Your task to perform on an android device: Open calendar and show me the first week of next month Image 0: 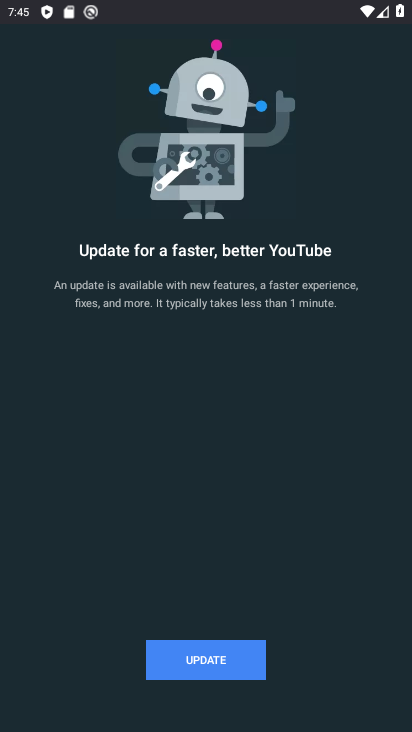
Step 0: press home button
Your task to perform on an android device: Open calendar and show me the first week of next month Image 1: 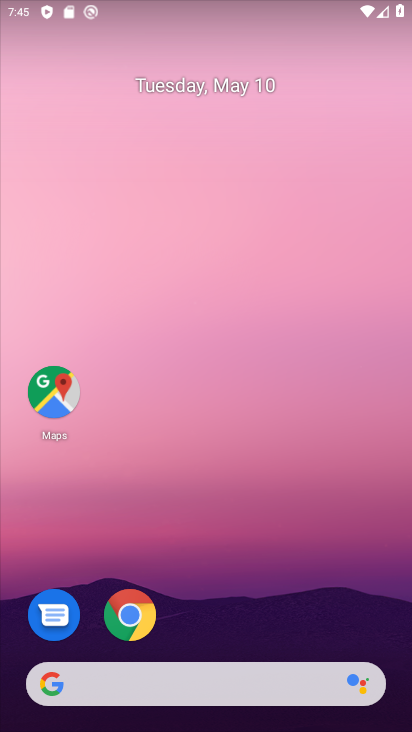
Step 1: drag from (171, 603) to (258, 240)
Your task to perform on an android device: Open calendar and show me the first week of next month Image 2: 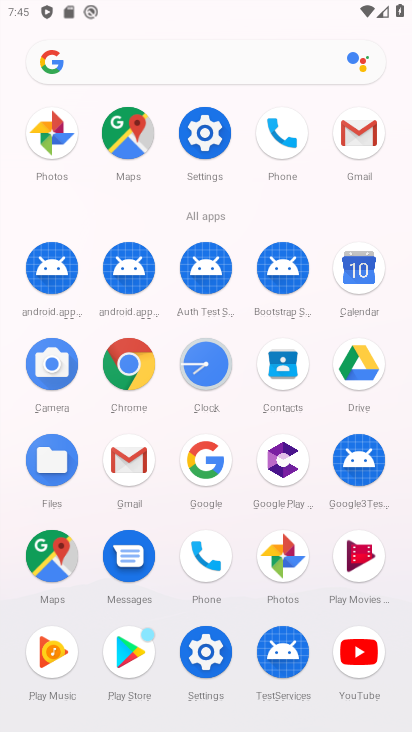
Step 2: click (345, 254)
Your task to perform on an android device: Open calendar and show me the first week of next month Image 3: 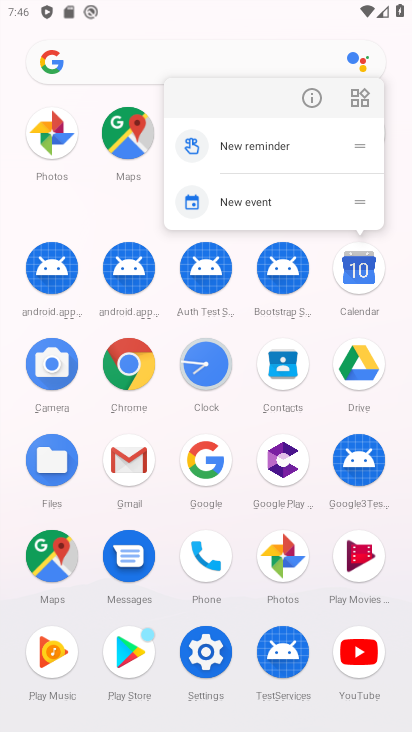
Step 3: drag from (237, 621) to (300, 276)
Your task to perform on an android device: Open calendar and show me the first week of next month Image 4: 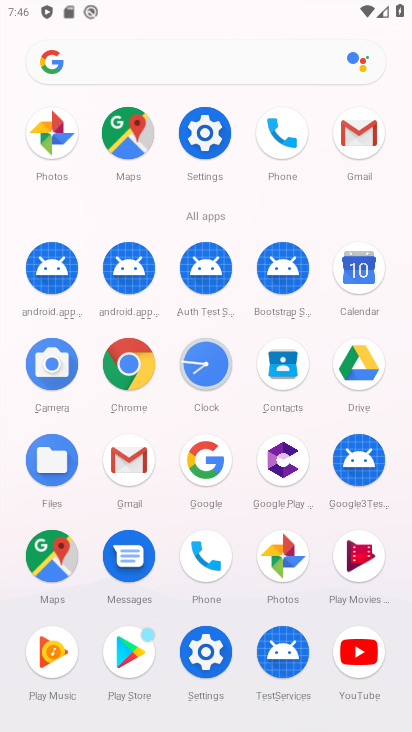
Step 4: drag from (252, 618) to (277, 246)
Your task to perform on an android device: Open calendar and show me the first week of next month Image 5: 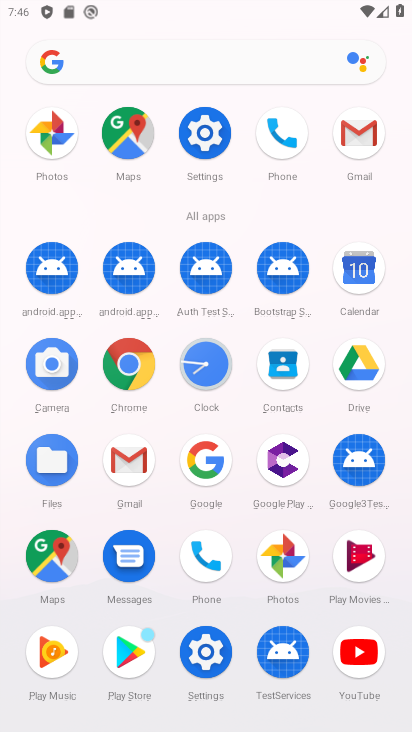
Step 5: drag from (245, 625) to (245, 279)
Your task to perform on an android device: Open calendar and show me the first week of next month Image 6: 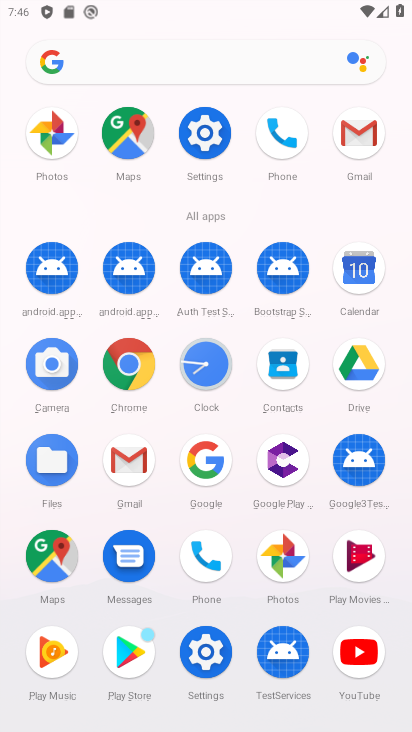
Step 6: click (356, 255)
Your task to perform on an android device: Open calendar and show me the first week of next month Image 7: 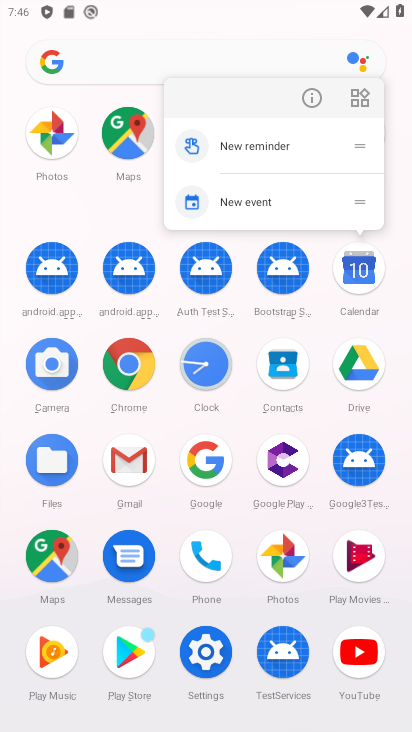
Step 7: click (319, 95)
Your task to perform on an android device: Open calendar and show me the first week of next month Image 8: 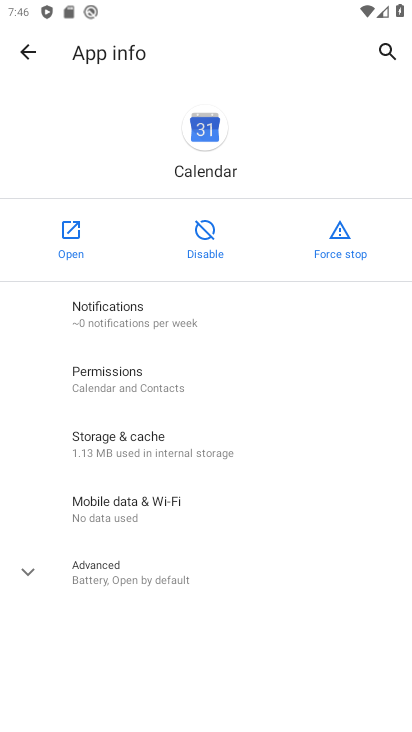
Step 8: click (71, 250)
Your task to perform on an android device: Open calendar and show me the first week of next month Image 9: 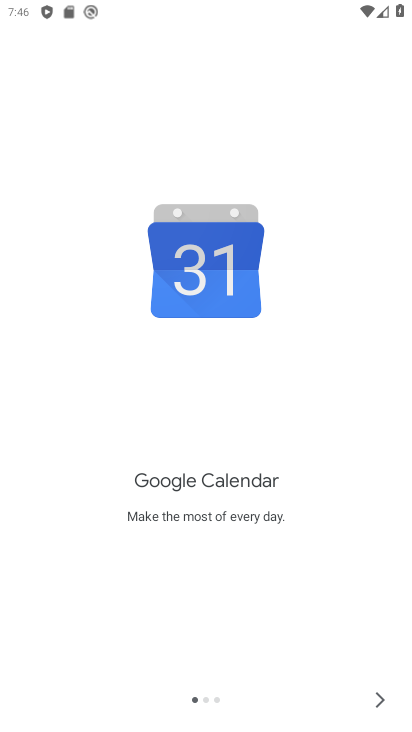
Step 9: click (372, 689)
Your task to perform on an android device: Open calendar and show me the first week of next month Image 10: 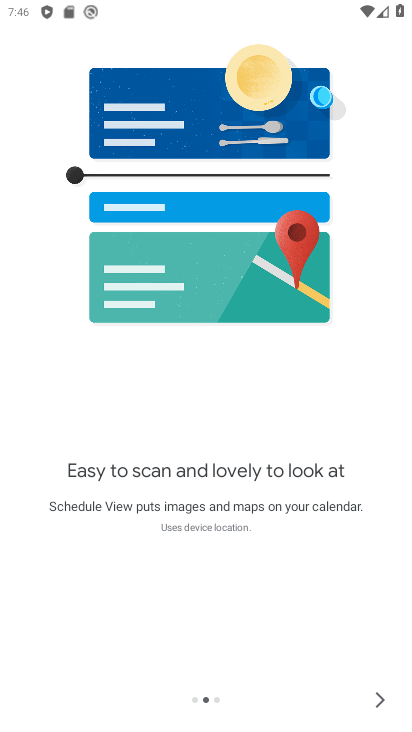
Step 10: click (373, 690)
Your task to perform on an android device: Open calendar and show me the first week of next month Image 11: 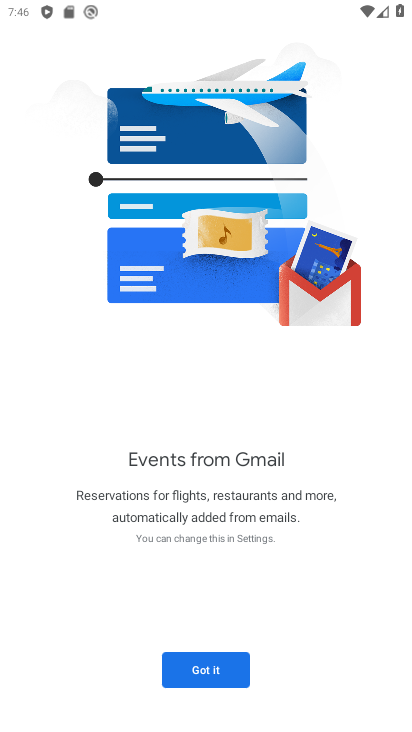
Step 11: click (371, 691)
Your task to perform on an android device: Open calendar and show me the first week of next month Image 12: 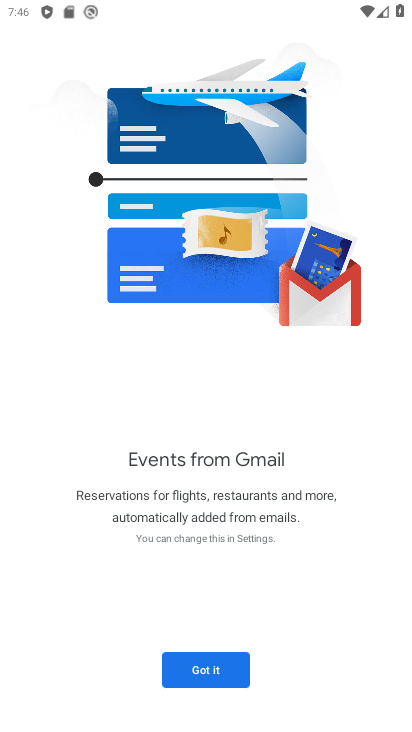
Step 12: click (224, 655)
Your task to perform on an android device: Open calendar and show me the first week of next month Image 13: 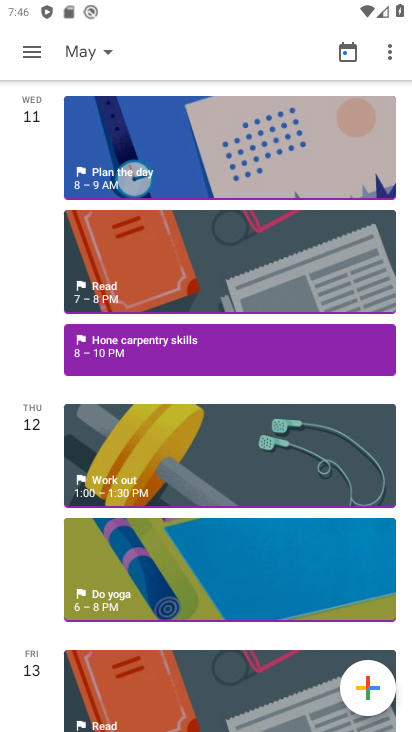
Step 13: drag from (239, 635) to (268, 297)
Your task to perform on an android device: Open calendar and show me the first week of next month Image 14: 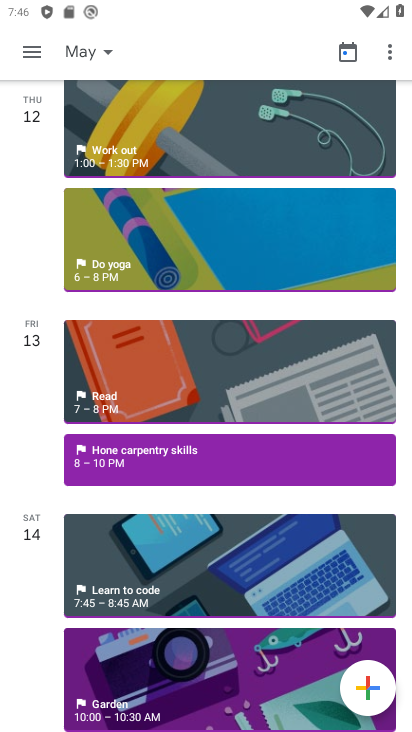
Step 14: drag from (160, 192) to (191, 720)
Your task to perform on an android device: Open calendar and show me the first week of next month Image 15: 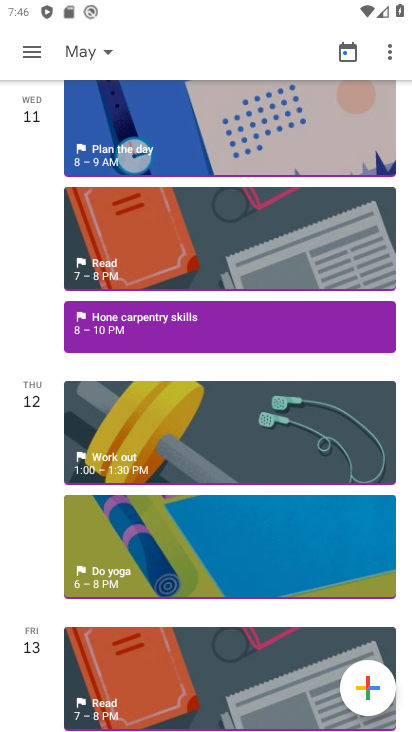
Step 15: click (92, 50)
Your task to perform on an android device: Open calendar and show me the first week of next month Image 16: 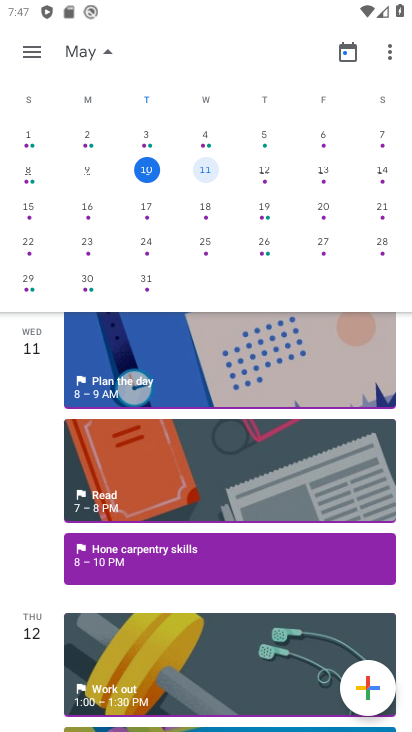
Step 16: drag from (355, 209) to (22, 120)
Your task to perform on an android device: Open calendar and show me the first week of next month Image 17: 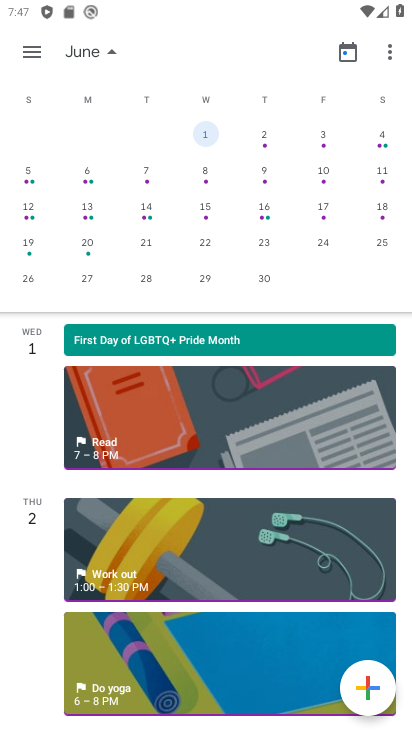
Step 17: click (315, 138)
Your task to perform on an android device: Open calendar and show me the first week of next month Image 18: 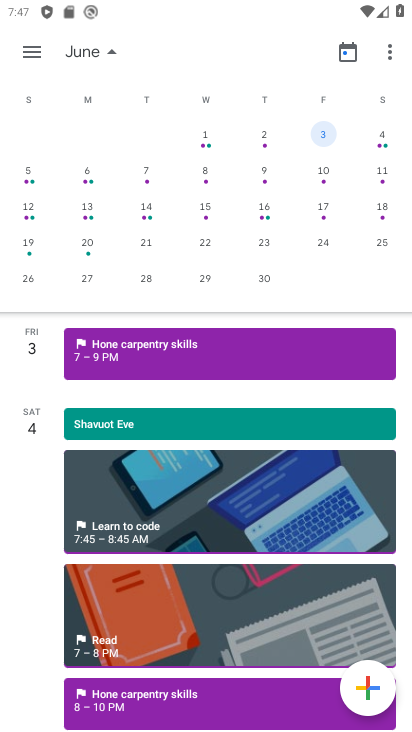
Step 18: task complete